Your task to perform on an android device: Clear the shopping cart on costco.com. Search for usb-c to usb-a on costco.com, select the first entry, add it to the cart, then select checkout. Image 0: 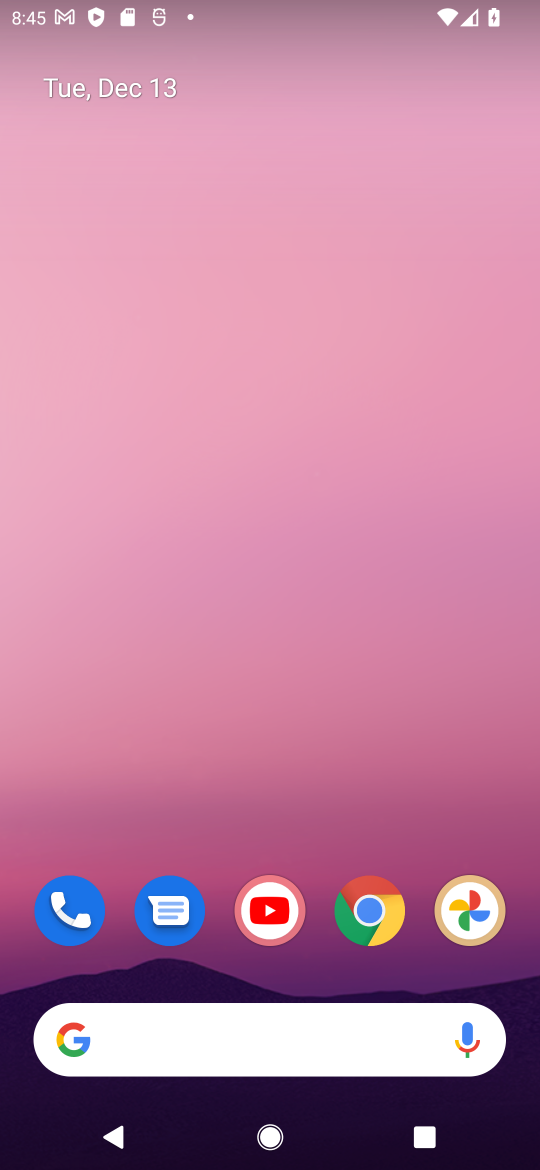
Step 0: drag from (229, 1040) to (270, 312)
Your task to perform on an android device: Clear the shopping cart on costco.com. Search for usb-c to usb-a on costco.com, select the first entry, add it to the cart, then select checkout. Image 1: 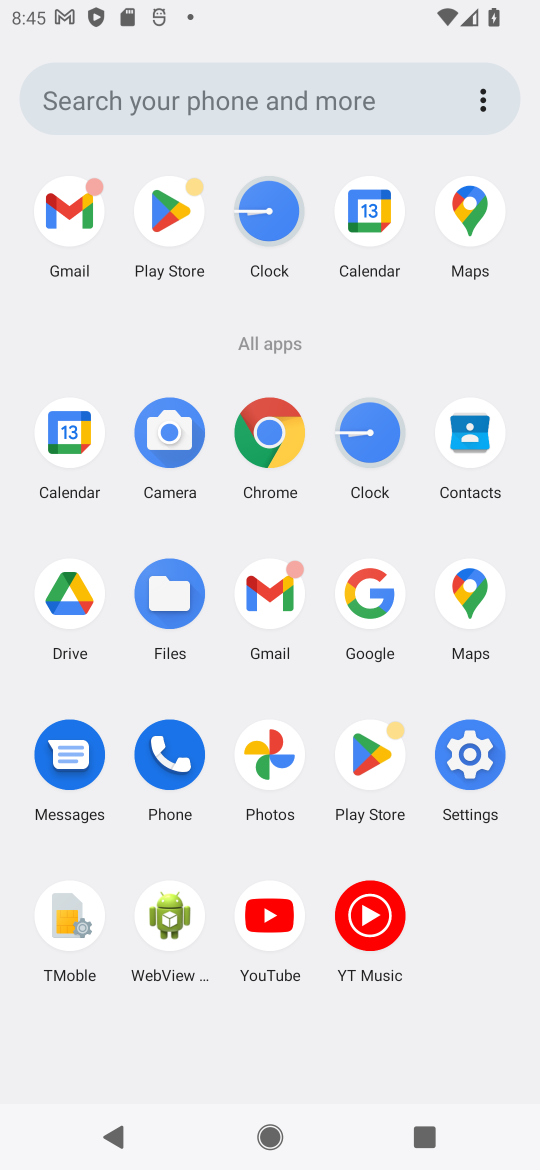
Step 1: click (388, 598)
Your task to perform on an android device: Clear the shopping cart on costco.com. Search for usb-c to usb-a on costco.com, select the first entry, add it to the cart, then select checkout. Image 2: 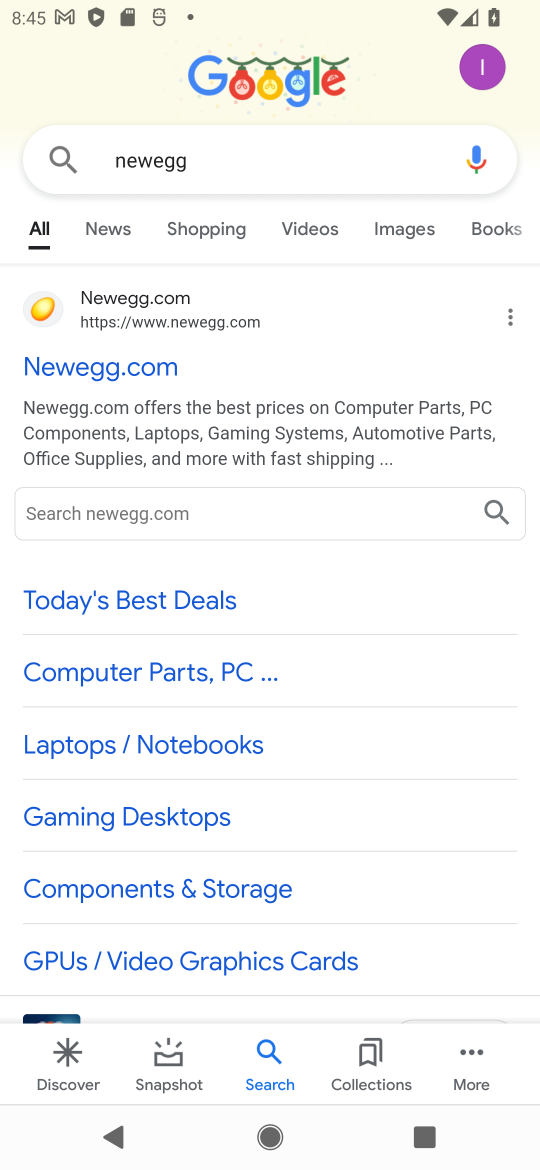
Step 2: click (140, 167)
Your task to perform on an android device: Clear the shopping cart on costco.com. Search for usb-c to usb-a on costco.com, select the first entry, add it to the cart, then select checkout. Image 3: 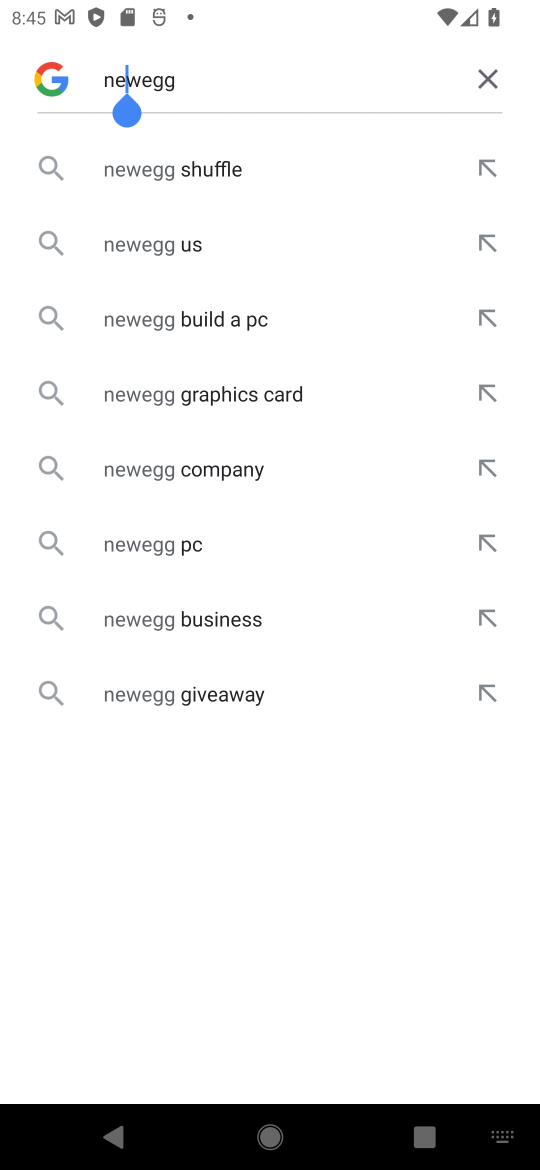
Step 3: click (480, 85)
Your task to perform on an android device: Clear the shopping cart on costco.com. Search for usb-c to usb-a on costco.com, select the first entry, add it to the cart, then select checkout. Image 4: 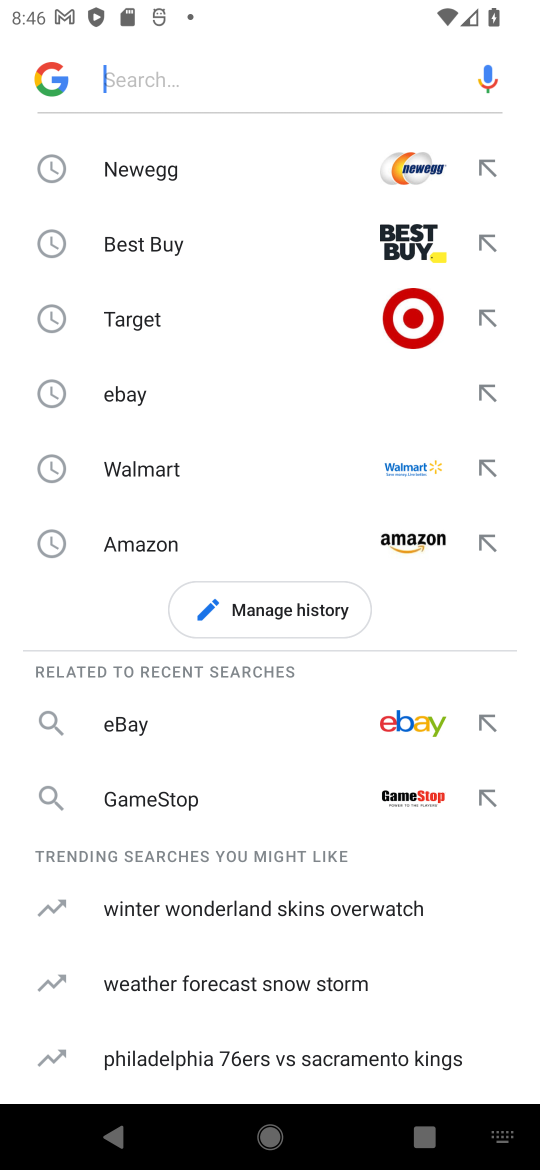
Step 4: type "costco.com"
Your task to perform on an android device: Clear the shopping cart on costco.com. Search for usb-c to usb-a on costco.com, select the first entry, add it to the cart, then select checkout. Image 5: 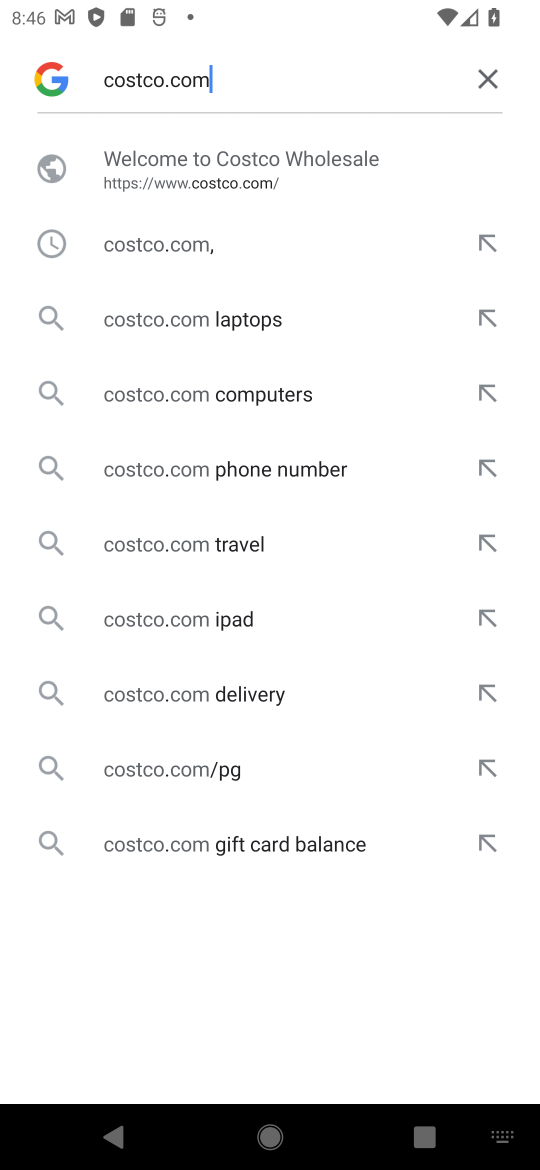
Step 5: click (116, 184)
Your task to perform on an android device: Clear the shopping cart on costco.com. Search for usb-c to usb-a on costco.com, select the first entry, add it to the cart, then select checkout. Image 6: 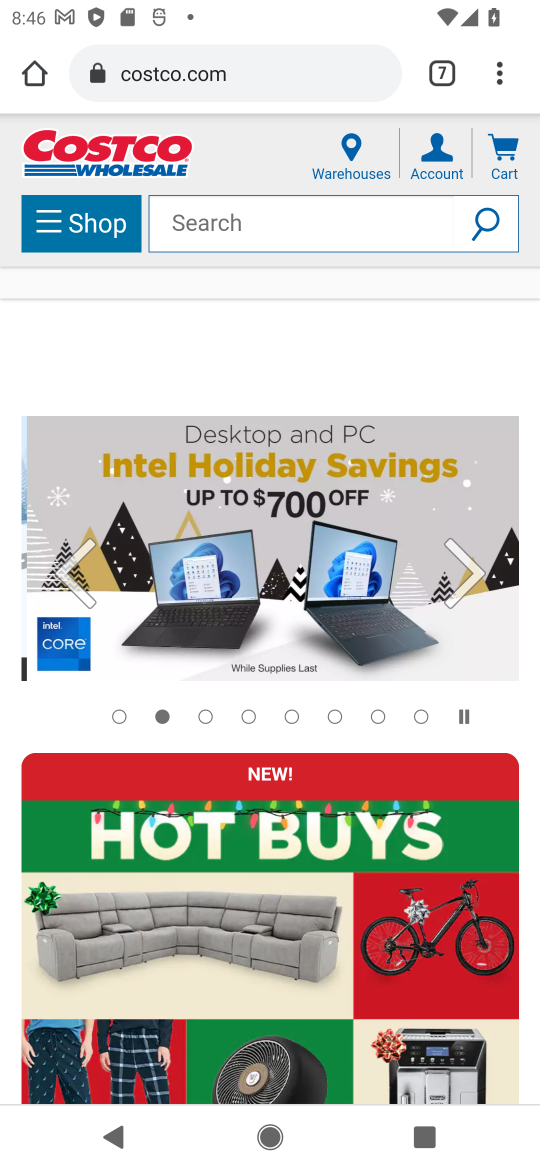
Step 6: click (233, 227)
Your task to perform on an android device: Clear the shopping cart on costco.com. Search for usb-c to usb-a on costco.com, select the first entry, add it to the cart, then select checkout. Image 7: 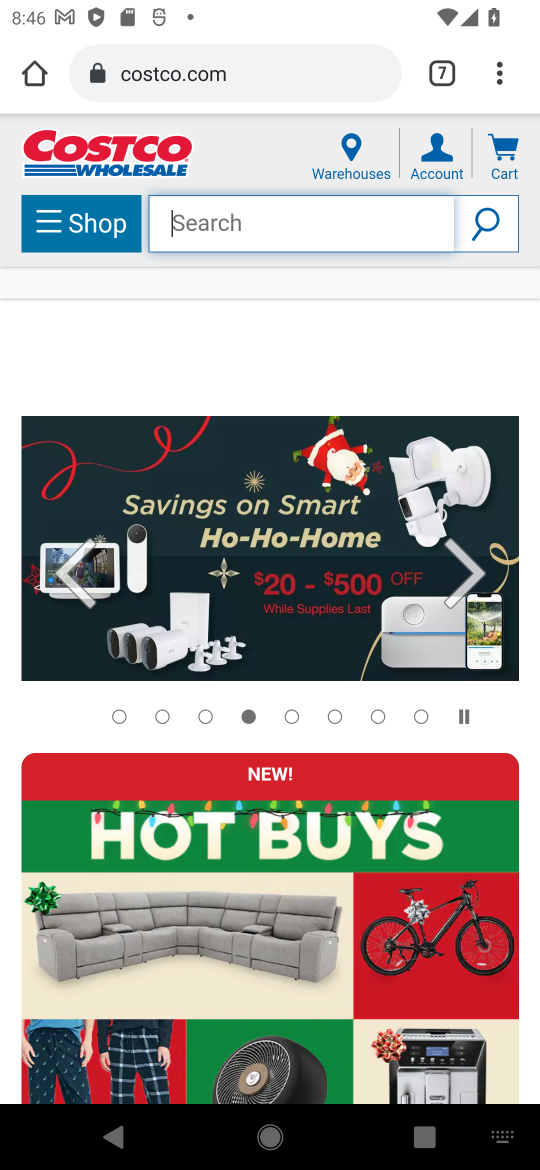
Step 7: type "usb-c to usb-a"
Your task to perform on an android device: Clear the shopping cart on costco.com. Search for usb-c to usb-a on costco.com, select the first entry, add it to the cart, then select checkout. Image 8: 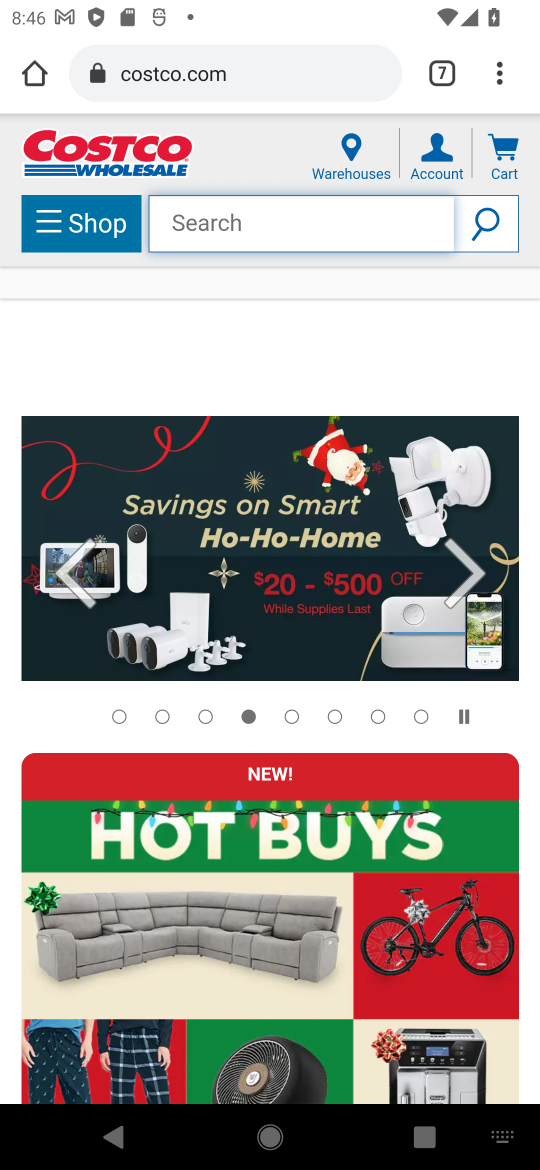
Step 8: click (498, 229)
Your task to perform on an android device: Clear the shopping cart on costco.com. Search for usb-c to usb-a on costco.com, select the first entry, add it to the cart, then select checkout. Image 9: 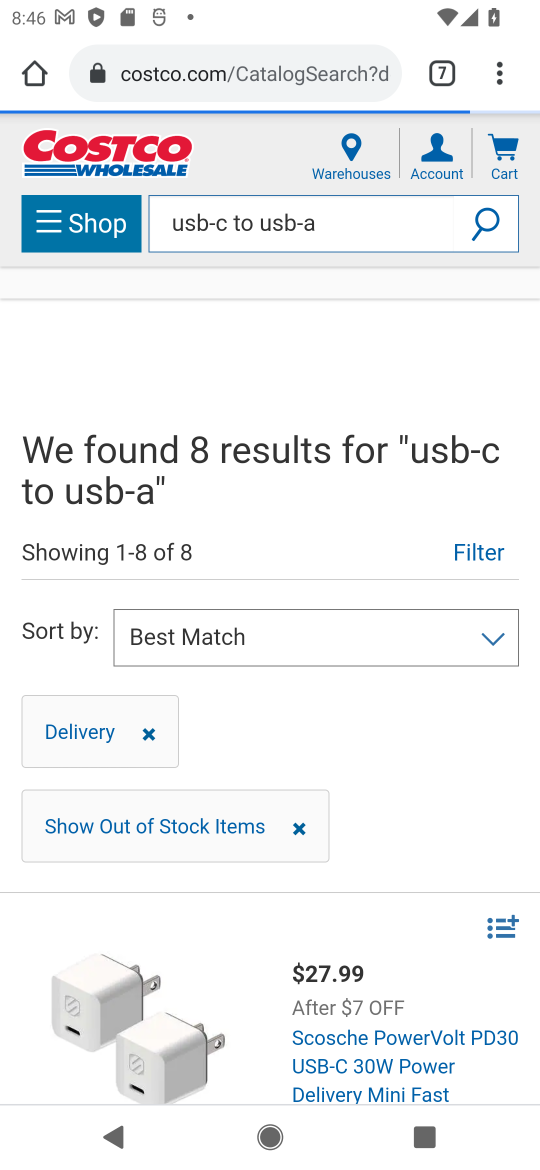
Step 9: drag from (313, 878) to (268, 454)
Your task to perform on an android device: Clear the shopping cart on costco.com. Search for usb-c to usb-a on costco.com, select the first entry, add it to the cart, then select checkout. Image 10: 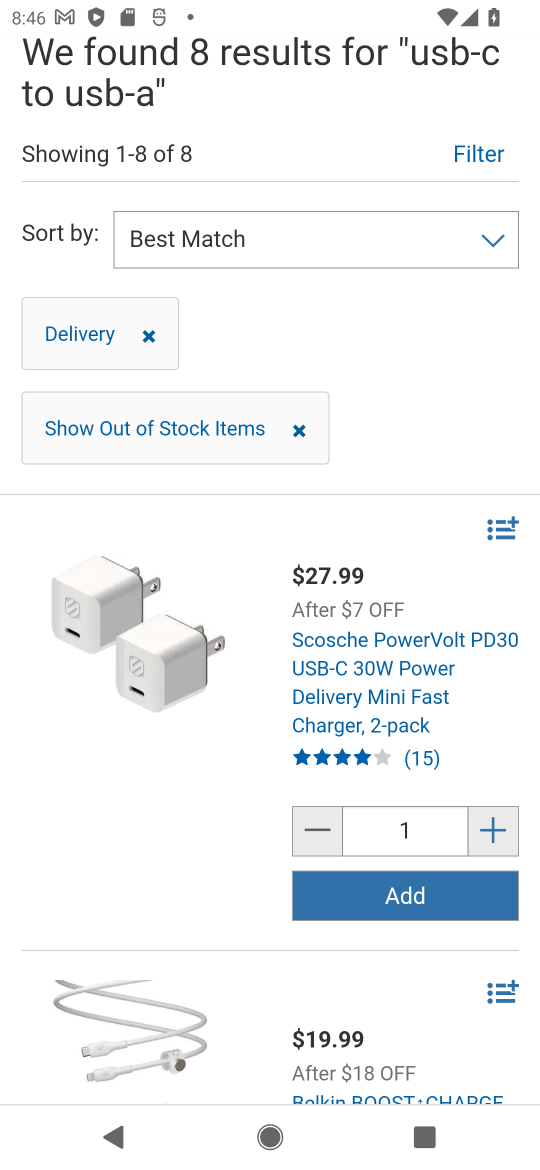
Step 10: click (392, 905)
Your task to perform on an android device: Clear the shopping cart on costco.com. Search for usb-c to usb-a on costco.com, select the first entry, add it to the cart, then select checkout. Image 11: 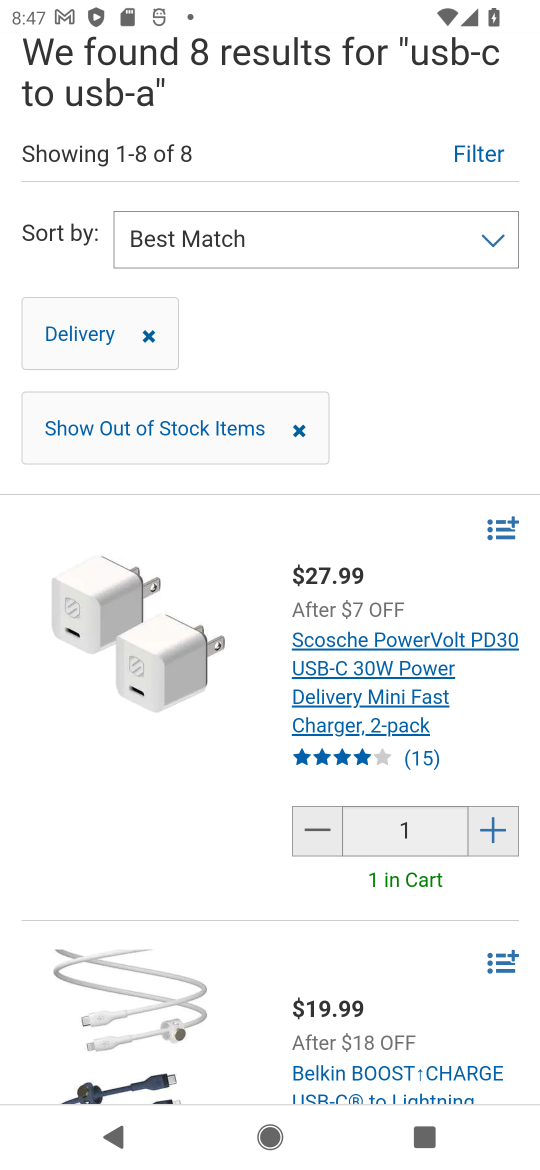
Step 11: drag from (294, 299) to (378, 767)
Your task to perform on an android device: Clear the shopping cart on costco.com. Search for usb-c to usb-a on costco.com, select the first entry, add it to the cart, then select checkout. Image 12: 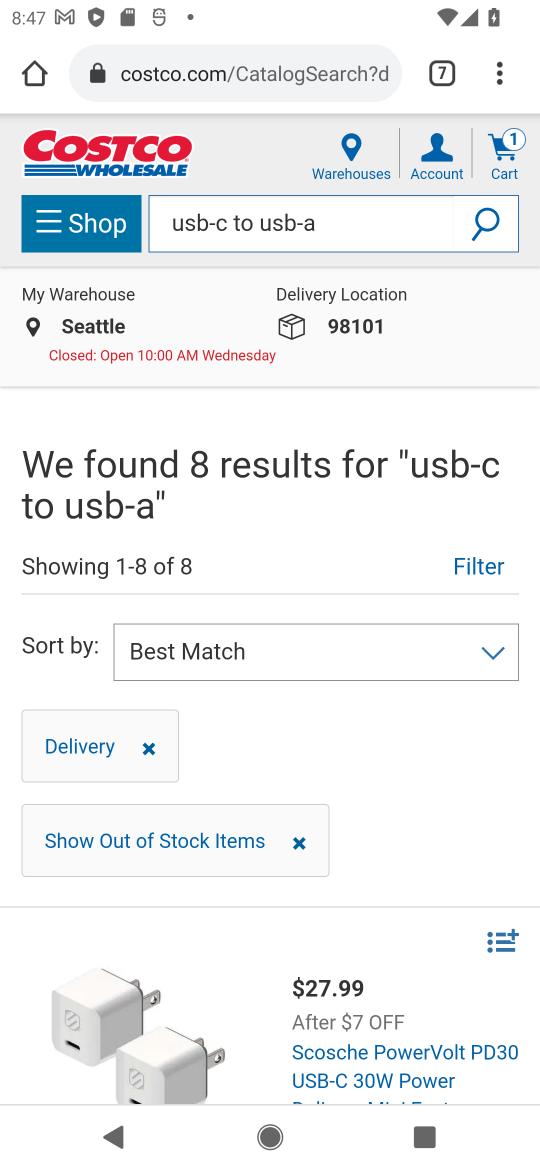
Step 12: click (502, 130)
Your task to perform on an android device: Clear the shopping cart on costco.com. Search for usb-c to usb-a on costco.com, select the first entry, add it to the cart, then select checkout. Image 13: 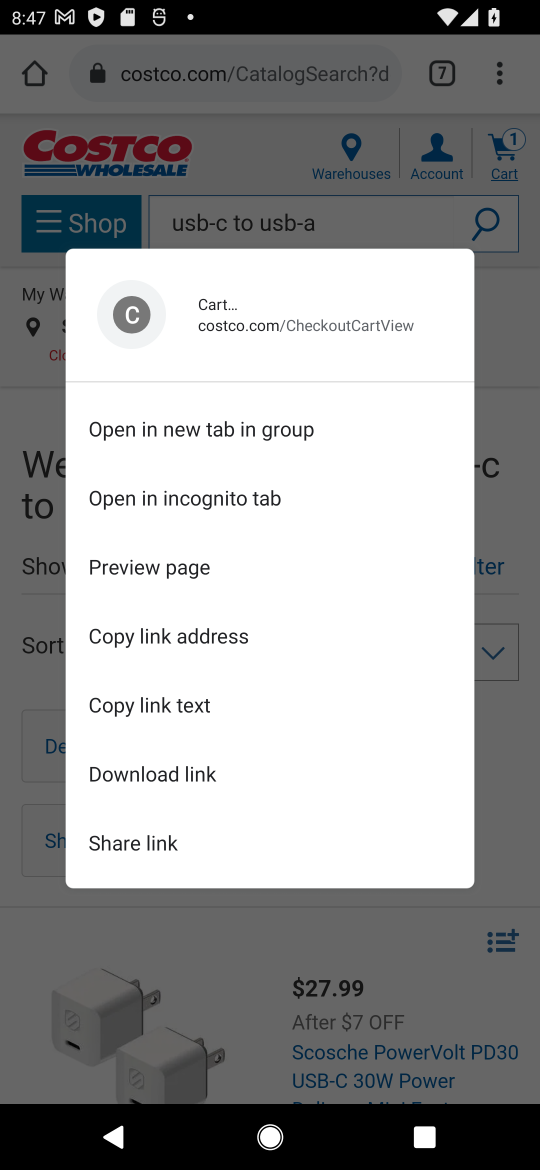
Step 13: click (17, 381)
Your task to perform on an android device: Clear the shopping cart on costco.com. Search for usb-c to usb-a on costco.com, select the first entry, add it to the cart, then select checkout. Image 14: 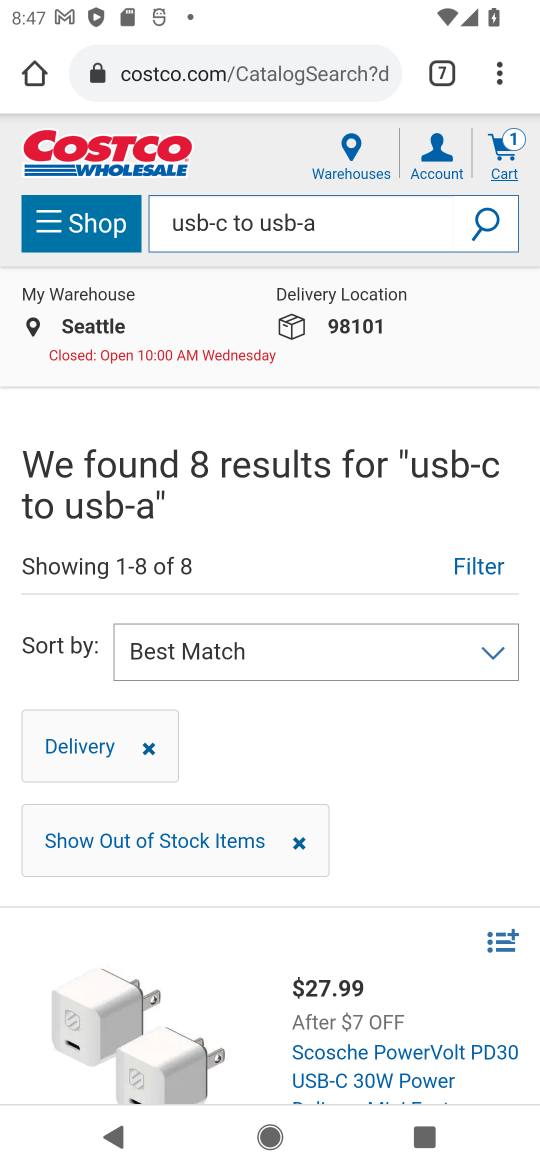
Step 14: click (500, 138)
Your task to perform on an android device: Clear the shopping cart on costco.com. Search for usb-c to usb-a on costco.com, select the first entry, add it to the cart, then select checkout. Image 15: 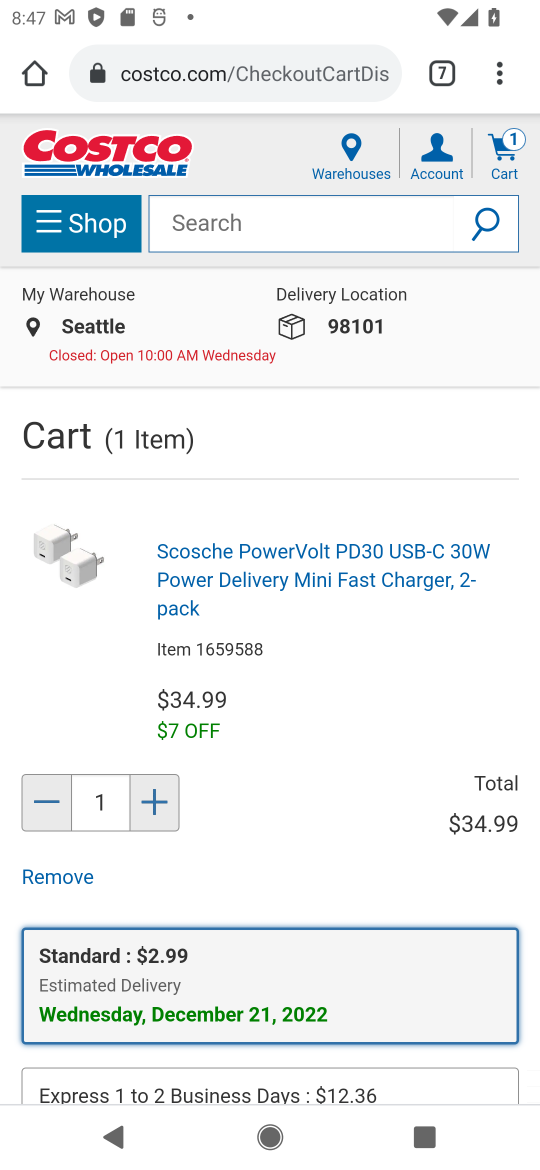
Step 15: drag from (314, 1076) to (375, 557)
Your task to perform on an android device: Clear the shopping cart on costco.com. Search for usb-c to usb-a on costco.com, select the first entry, add it to the cart, then select checkout. Image 16: 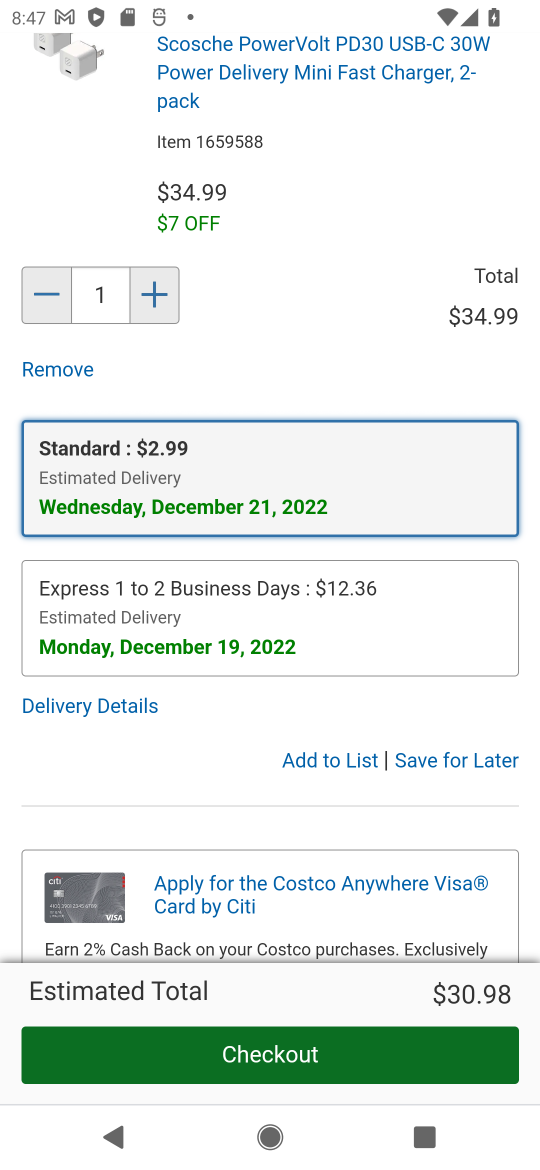
Step 16: click (281, 1067)
Your task to perform on an android device: Clear the shopping cart on costco.com. Search for usb-c to usb-a on costco.com, select the first entry, add it to the cart, then select checkout. Image 17: 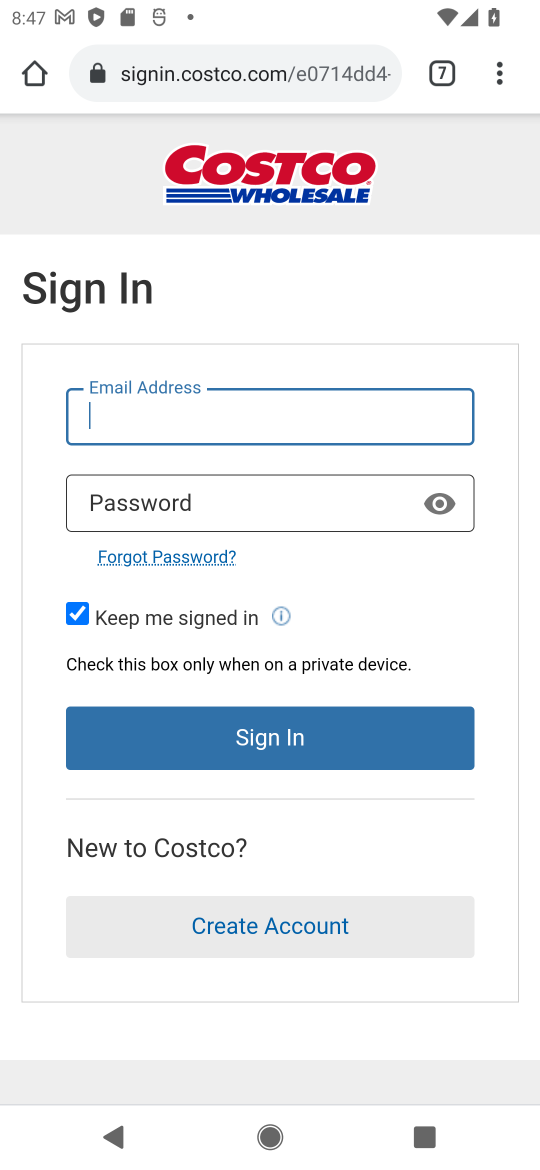
Step 17: task complete